Your task to perform on an android device: toggle priority inbox in the gmail app Image 0: 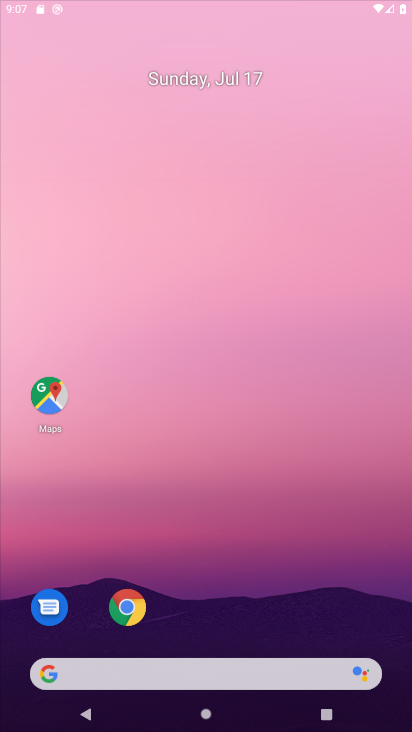
Step 0: click (244, 341)
Your task to perform on an android device: toggle priority inbox in the gmail app Image 1: 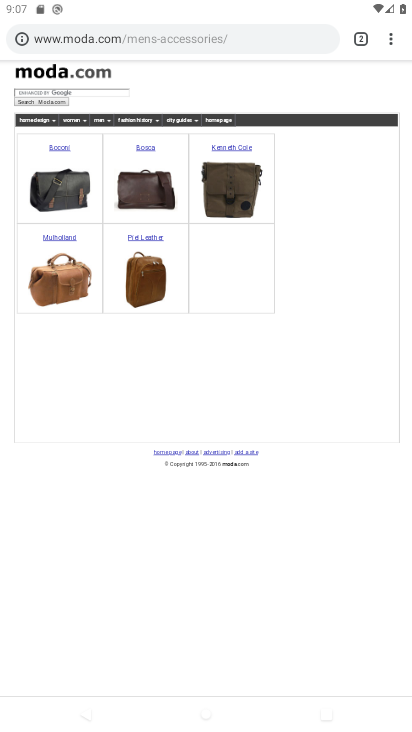
Step 1: drag from (389, 39) to (241, 475)
Your task to perform on an android device: toggle priority inbox in the gmail app Image 2: 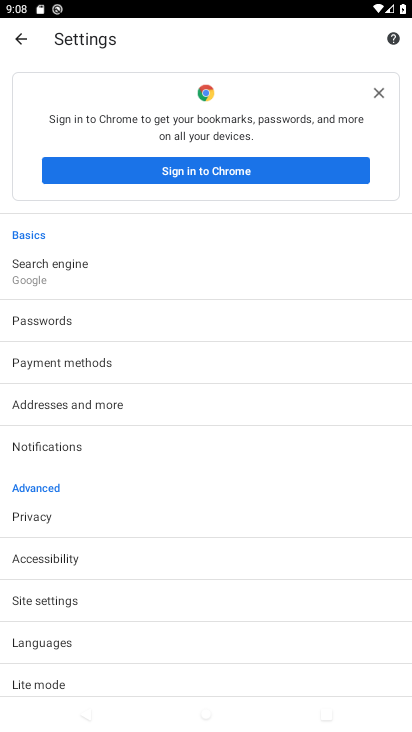
Step 2: drag from (84, 637) to (92, 249)
Your task to perform on an android device: toggle priority inbox in the gmail app Image 3: 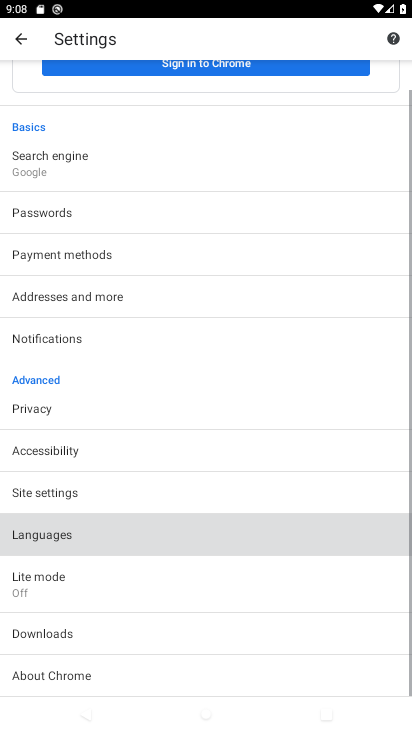
Step 3: drag from (158, 583) to (168, 141)
Your task to perform on an android device: toggle priority inbox in the gmail app Image 4: 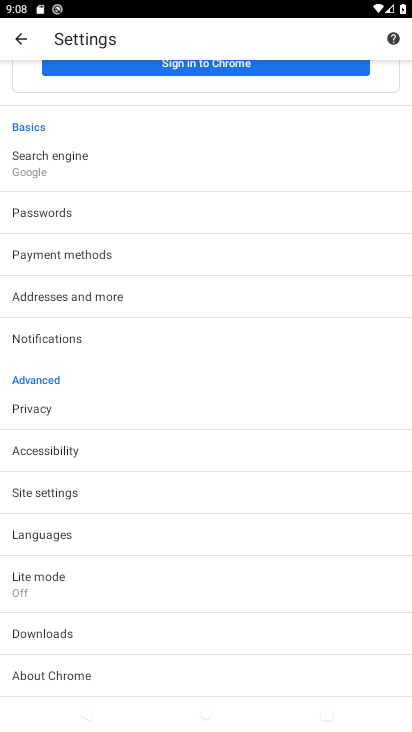
Step 4: click (37, 484)
Your task to perform on an android device: toggle priority inbox in the gmail app Image 5: 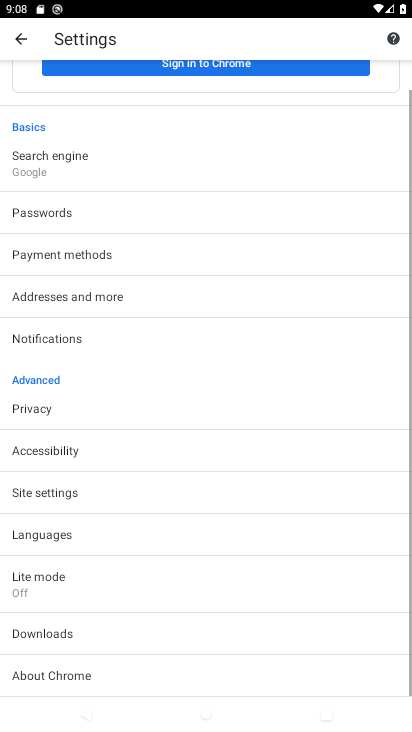
Step 5: click (37, 485)
Your task to perform on an android device: toggle priority inbox in the gmail app Image 6: 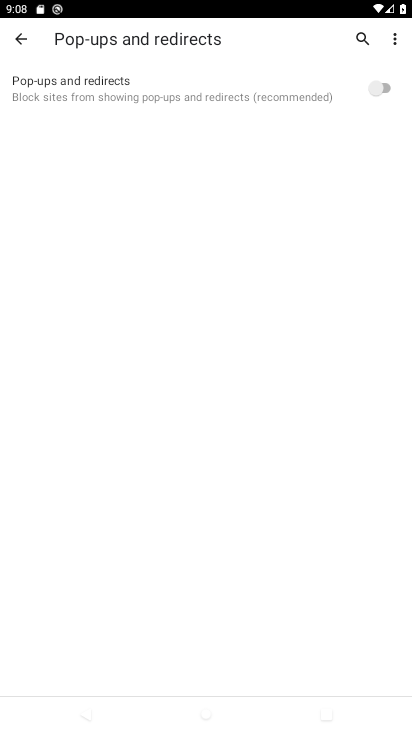
Step 6: click (17, 38)
Your task to perform on an android device: toggle priority inbox in the gmail app Image 7: 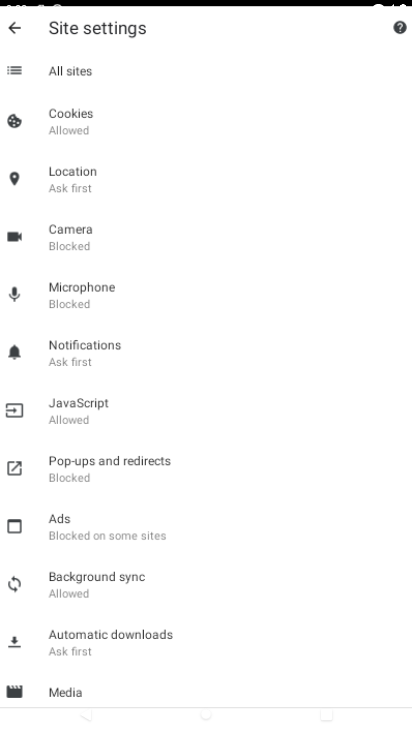
Step 7: click (18, 39)
Your task to perform on an android device: toggle priority inbox in the gmail app Image 8: 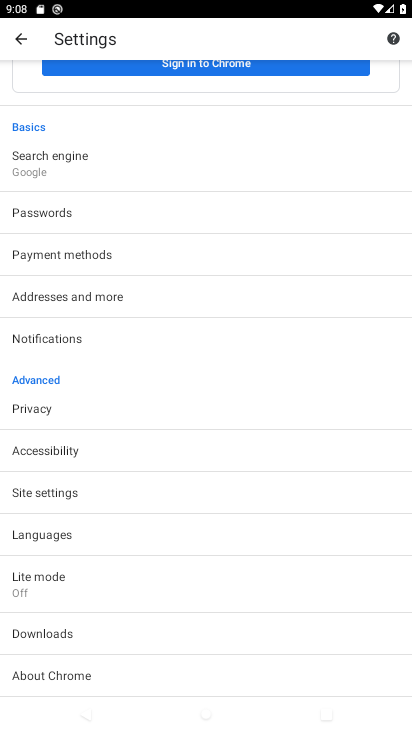
Step 8: click (19, 38)
Your task to perform on an android device: toggle priority inbox in the gmail app Image 9: 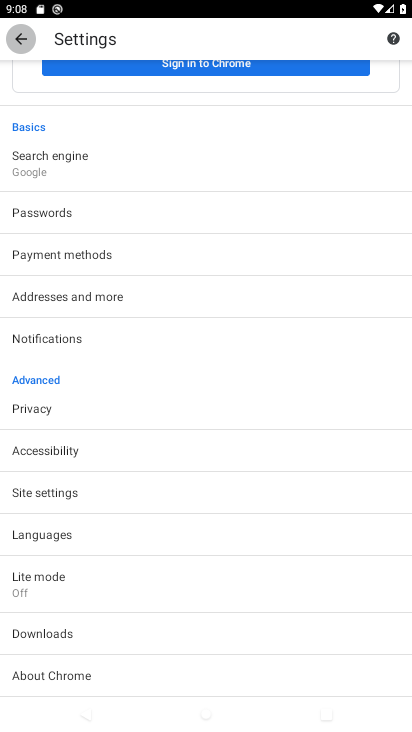
Step 9: click (43, 40)
Your task to perform on an android device: toggle priority inbox in the gmail app Image 10: 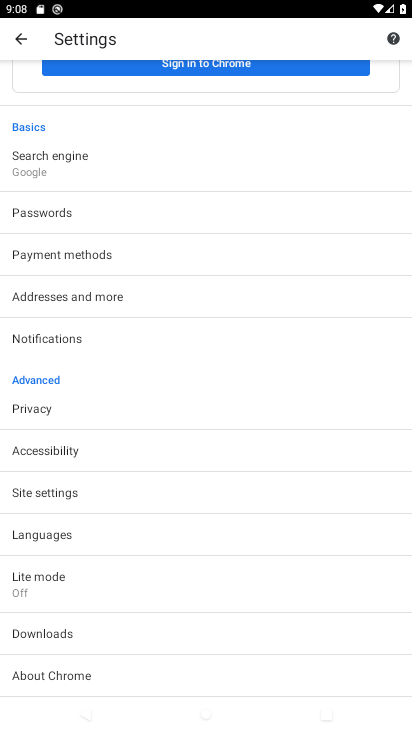
Step 10: click (42, 47)
Your task to perform on an android device: toggle priority inbox in the gmail app Image 11: 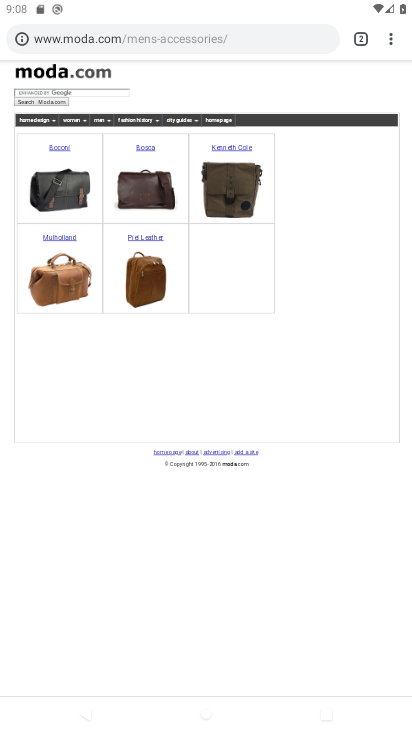
Step 11: press back button
Your task to perform on an android device: toggle priority inbox in the gmail app Image 12: 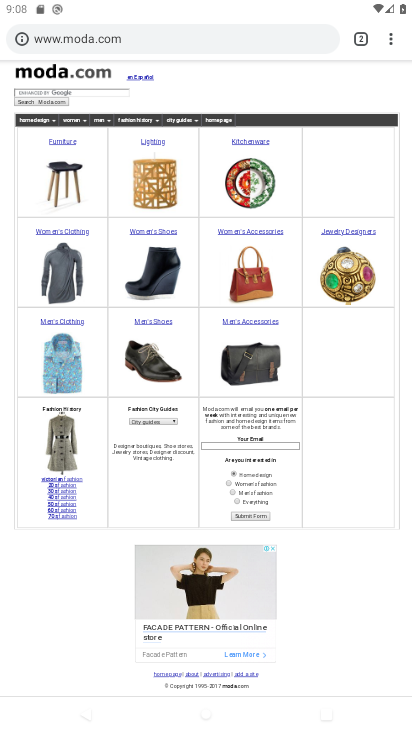
Step 12: press home button
Your task to perform on an android device: toggle priority inbox in the gmail app Image 13: 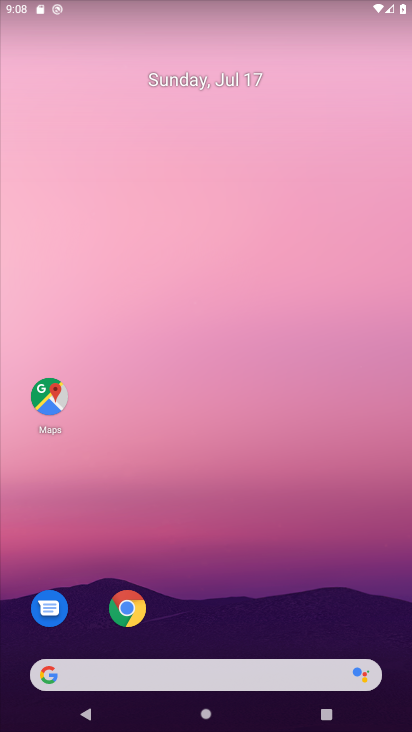
Step 13: drag from (223, 668) to (162, 232)
Your task to perform on an android device: toggle priority inbox in the gmail app Image 14: 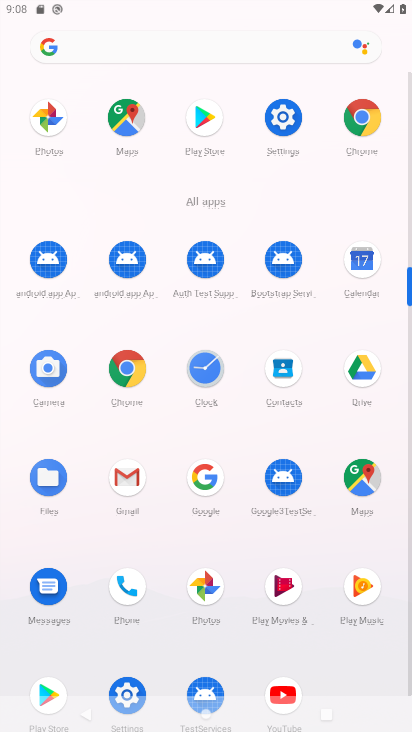
Step 14: click (126, 471)
Your task to perform on an android device: toggle priority inbox in the gmail app Image 15: 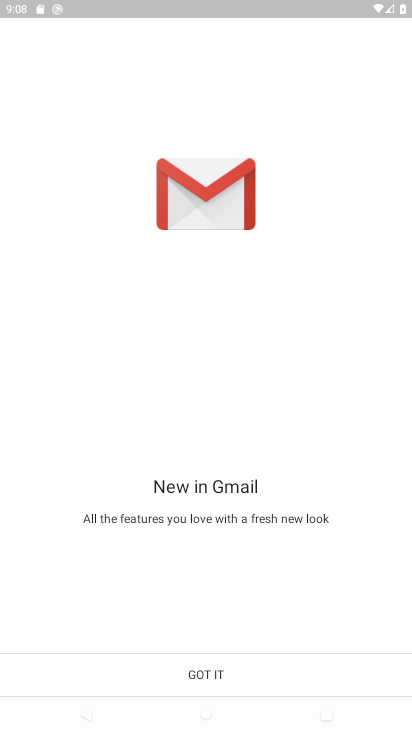
Step 15: click (216, 661)
Your task to perform on an android device: toggle priority inbox in the gmail app Image 16: 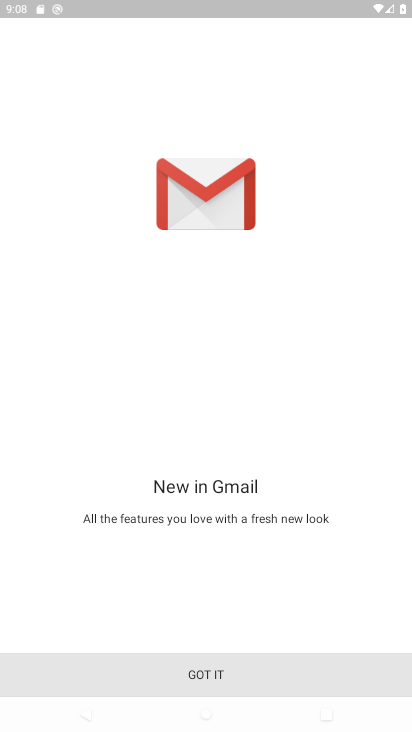
Step 16: click (212, 666)
Your task to perform on an android device: toggle priority inbox in the gmail app Image 17: 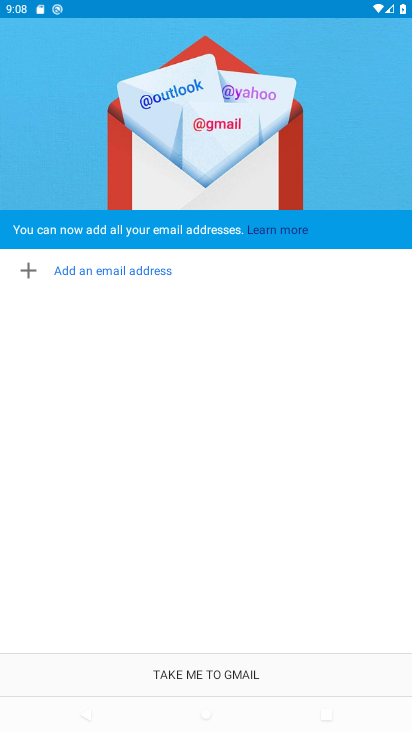
Step 17: click (224, 664)
Your task to perform on an android device: toggle priority inbox in the gmail app Image 18: 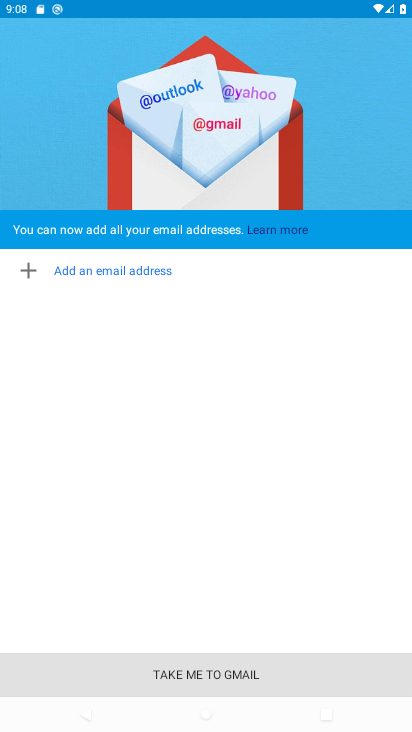
Step 18: click (225, 664)
Your task to perform on an android device: toggle priority inbox in the gmail app Image 19: 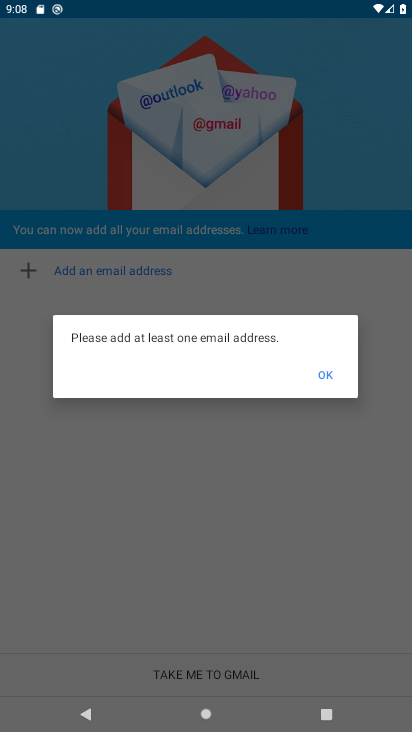
Step 19: click (224, 661)
Your task to perform on an android device: toggle priority inbox in the gmail app Image 20: 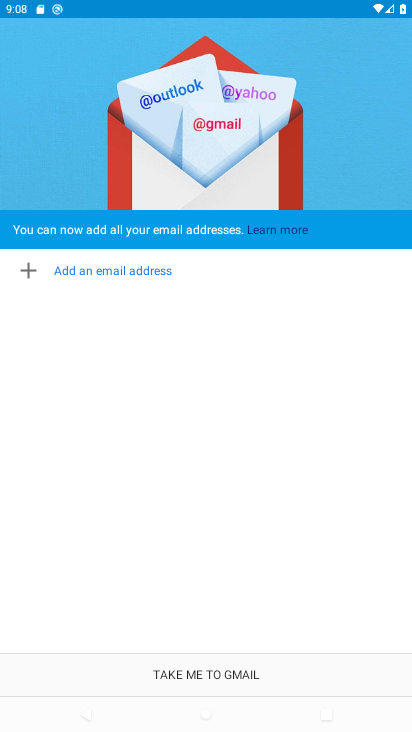
Step 20: drag from (251, 670) to (231, 701)
Your task to perform on an android device: toggle priority inbox in the gmail app Image 21: 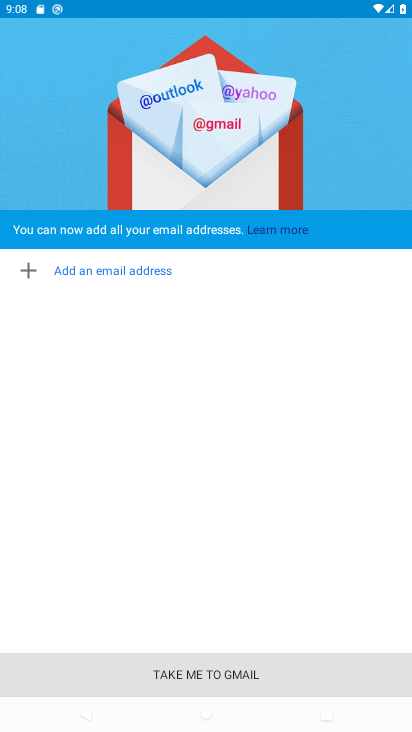
Step 21: click (243, 676)
Your task to perform on an android device: toggle priority inbox in the gmail app Image 22: 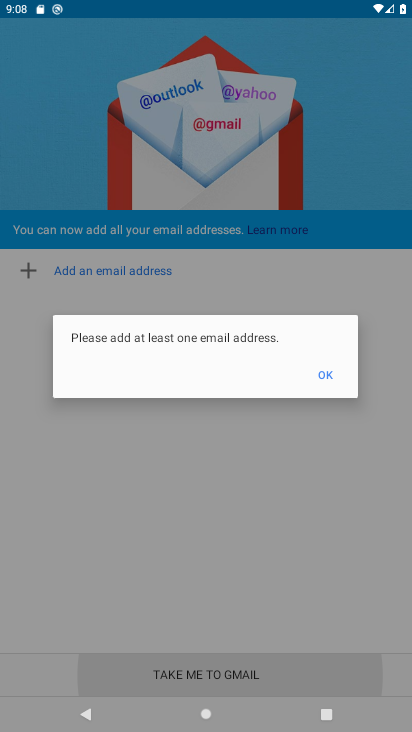
Step 22: click (256, 665)
Your task to perform on an android device: toggle priority inbox in the gmail app Image 23: 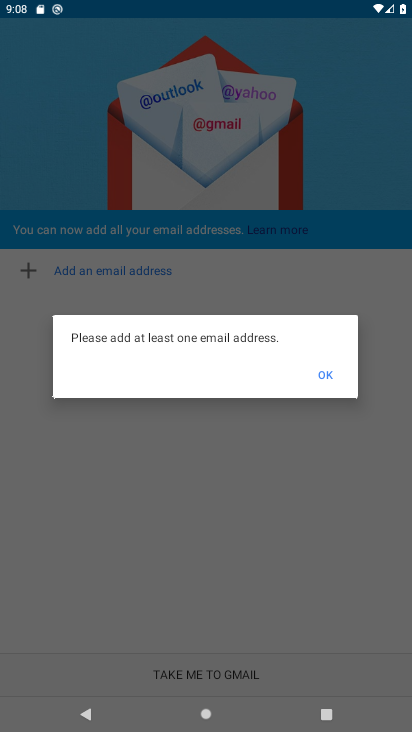
Step 23: click (328, 367)
Your task to perform on an android device: toggle priority inbox in the gmail app Image 24: 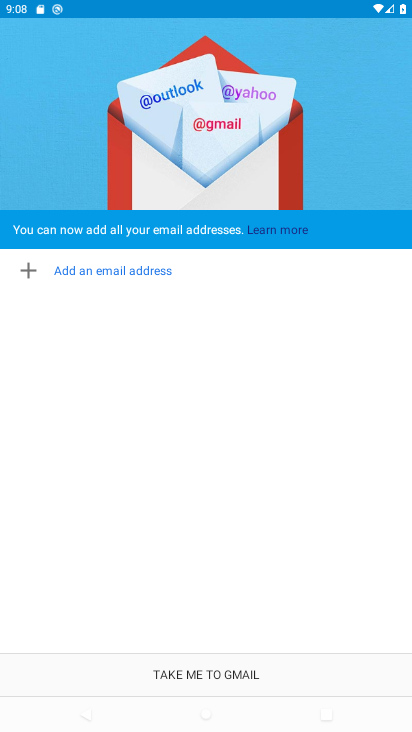
Step 24: task complete